Your task to perform on an android device: check storage Image 0: 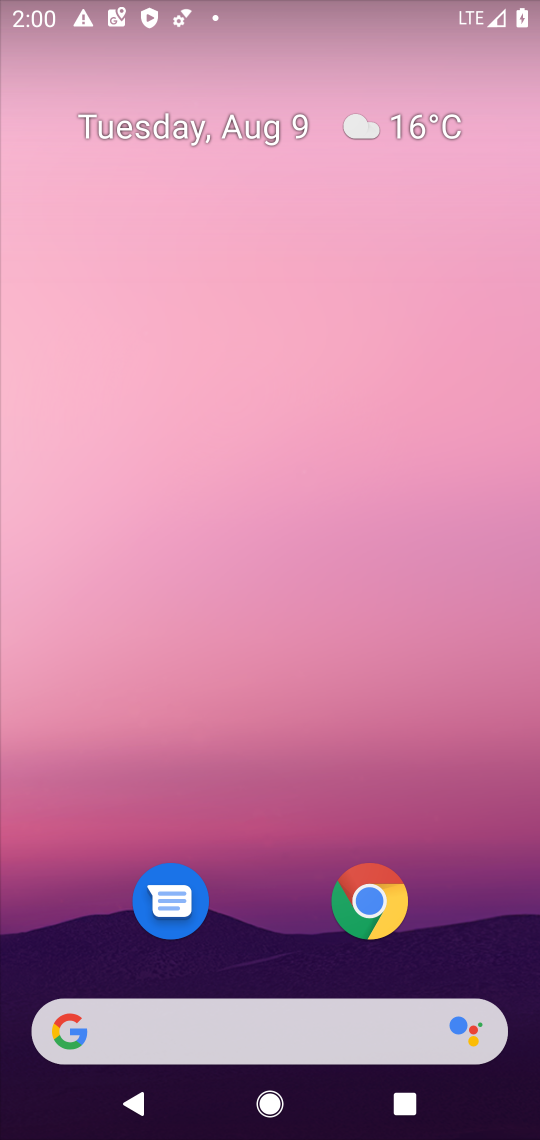
Step 0: drag from (511, 956) to (441, 177)
Your task to perform on an android device: check storage Image 1: 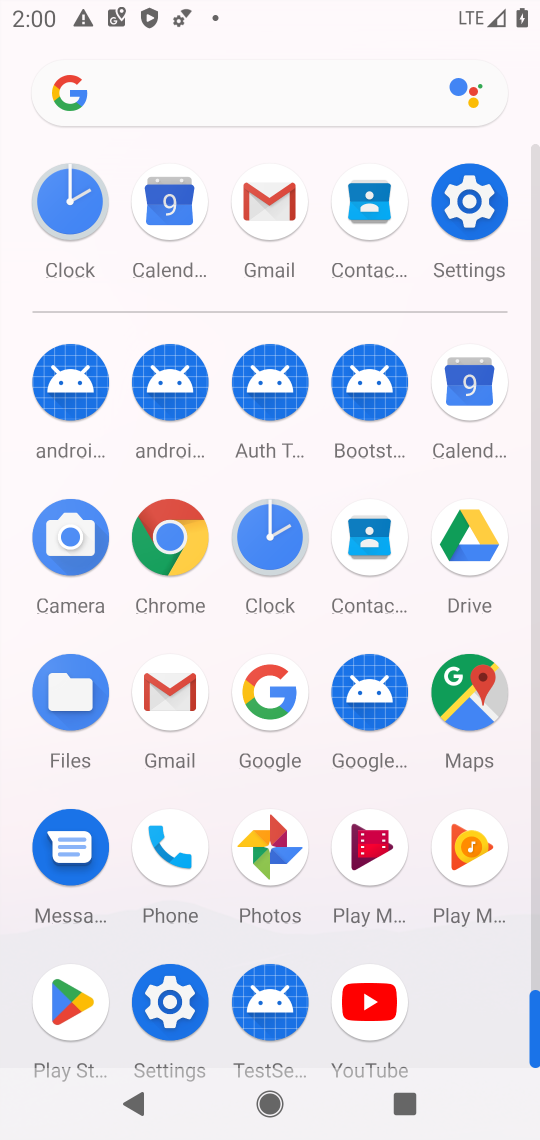
Step 1: click (169, 1004)
Your task to perform on an android device: check storage Image 2: 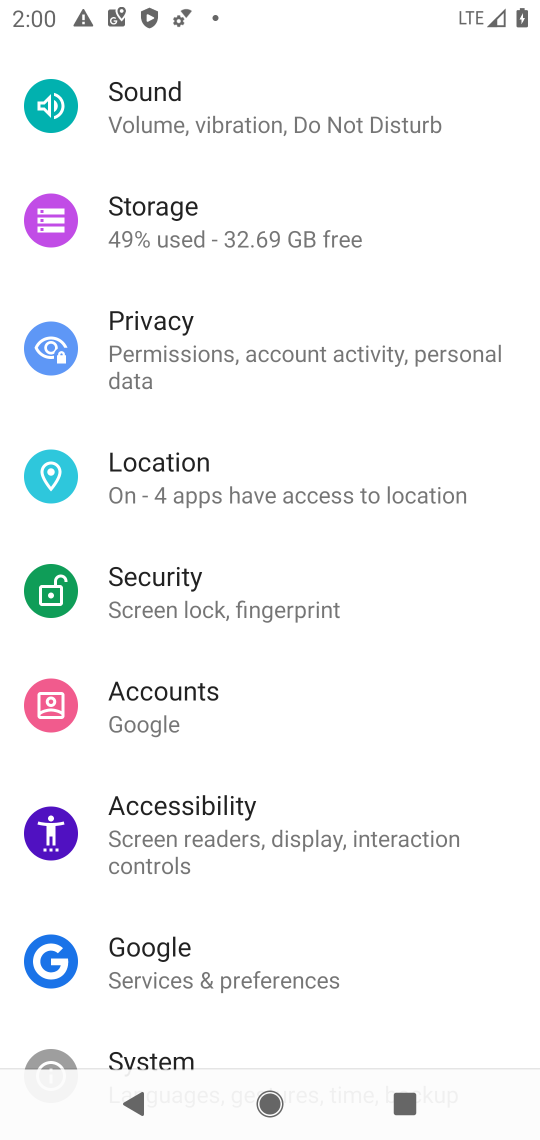
Step 2: click (172, 211)
Your task to perform on an android device: check storage Image 3: 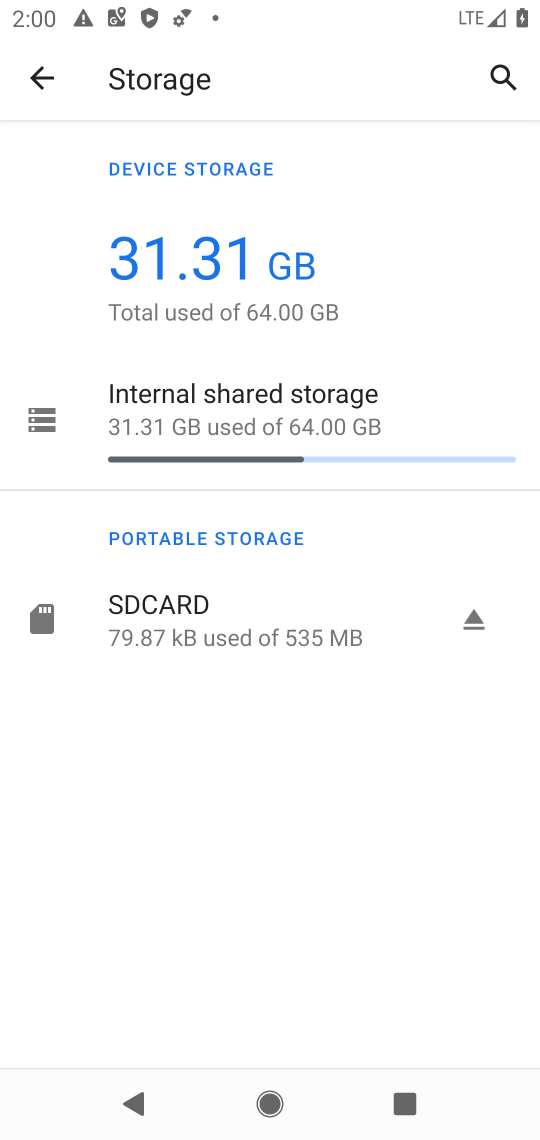
Step 3: task complete